Your task to perform on an android device: What's on my calendar tomorrow? Image 0: 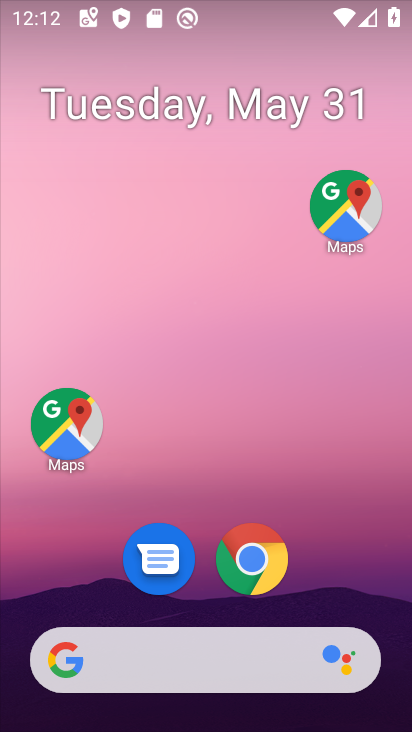
Step 0: drag from (328, 573) to (315, 217)
Your task to perform on an android device: What's on my calendar tomorrow? Image 1: 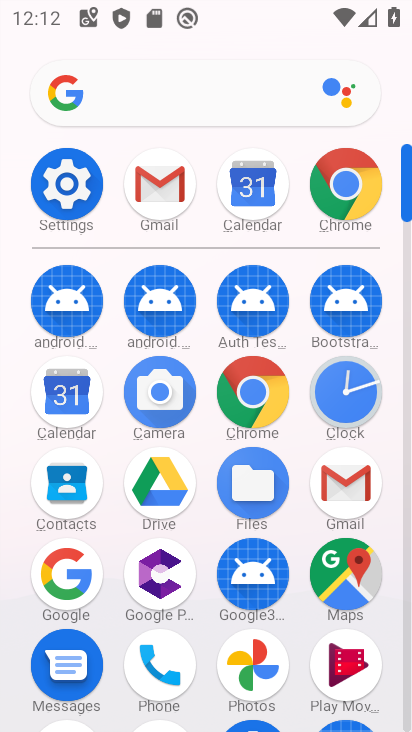
Step 1: click (81, 387)
Your task to perform on an android device: What's on my calendar tomorrow? Image 2: 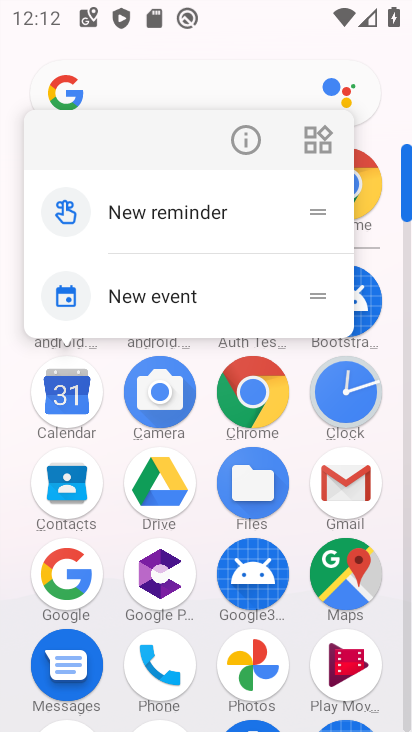
Step 2: click (83, 404)
Your task to perform on an android device: What's on my calendar tomorrow? Image 3: 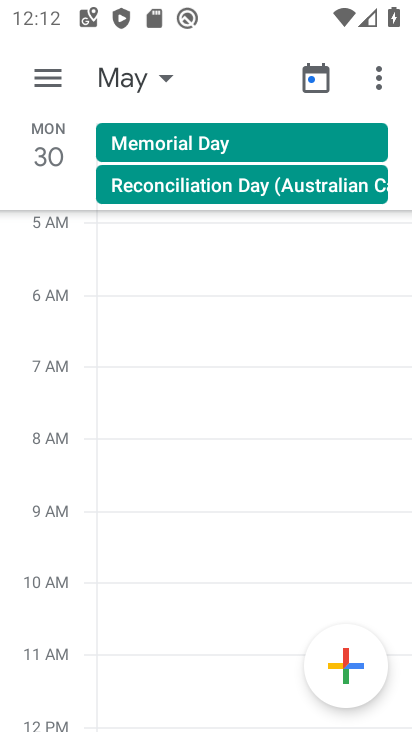
Step 3: click (139, 63)
Your task to perform on an android device: What's on my calendar tomorrow? Image 4: 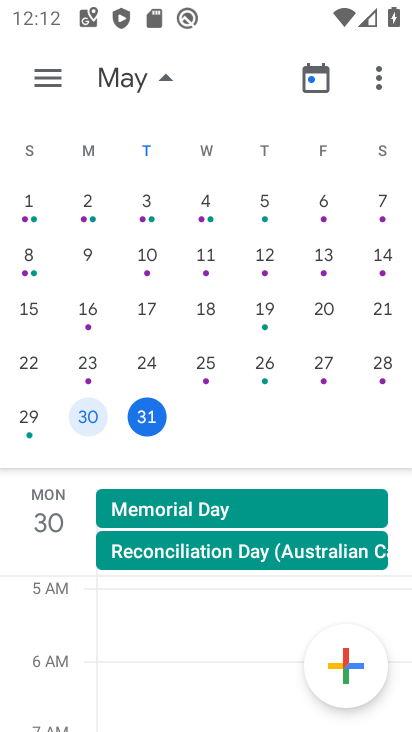
Step 4: drag from (351, 290) to (67, 250)
Your task to perform on an android device: What's on my calendar tomorrow? Image 5: 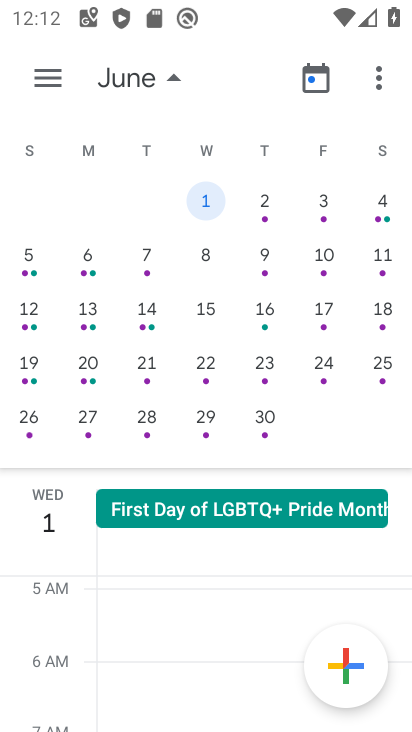
Step 5: click (201, 193)
Your task to perform on an android device: What's on my calendar tomorrow? Image 6: 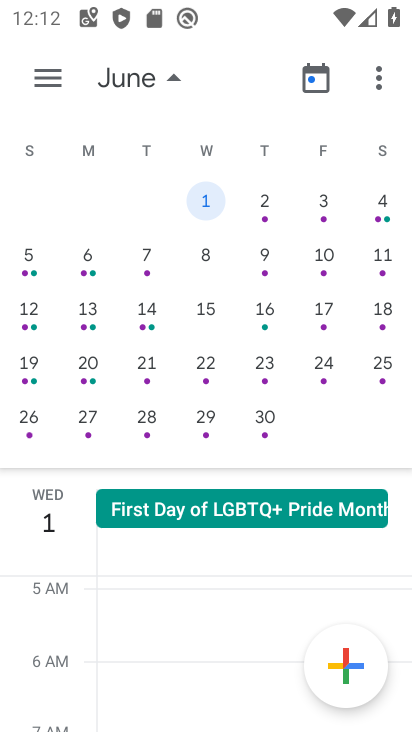
Step 6: task complete